Your task to perform on an android device: Show me popular games on the Play Store Image 0: 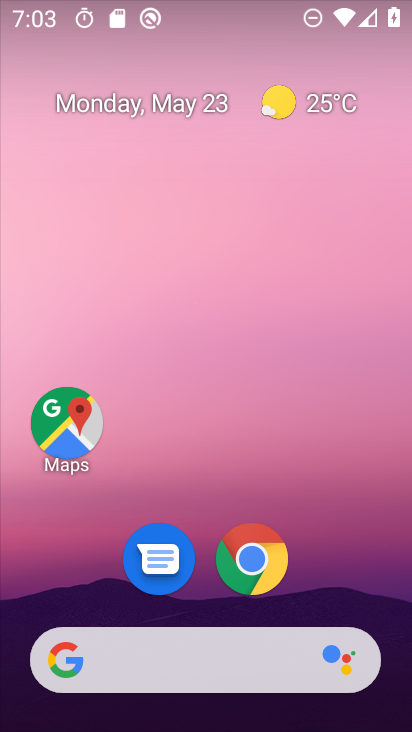
Step 0: drag from (408, 644) to (243, 27)
Your task to perform on an android device: Show me popular games on the Play Store Image 1: 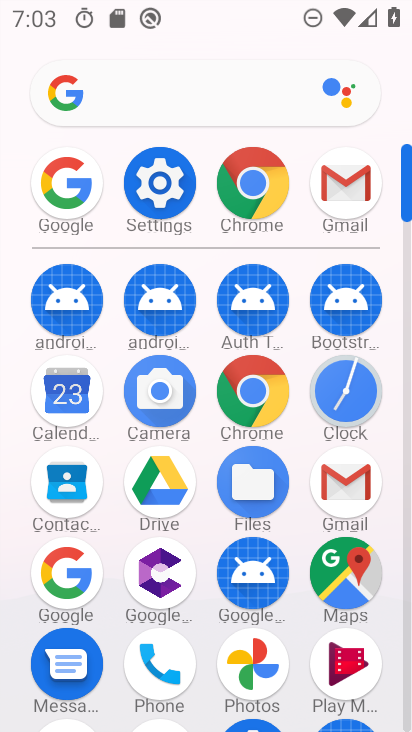
Step 1: drag from (206, 699) to (191, 231)
Your task to perform on an android device: Show me popular games on the Play Store Image 2: 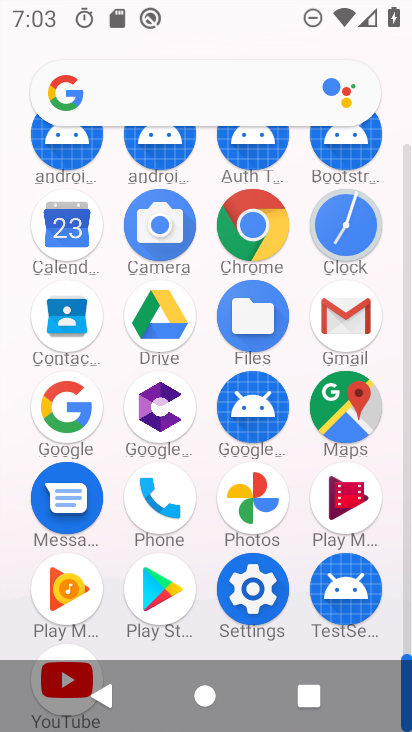
Step 2: click (166, 588)
Your task to perform on an android device: Show me popular games on the Play Store Image 3: 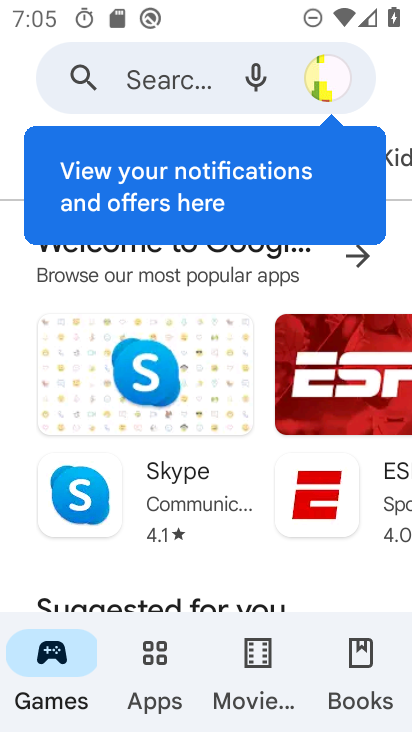
Step 3: task complete